Your task to perform on an android device: turn off priority inbox in the gmail app Image 0: 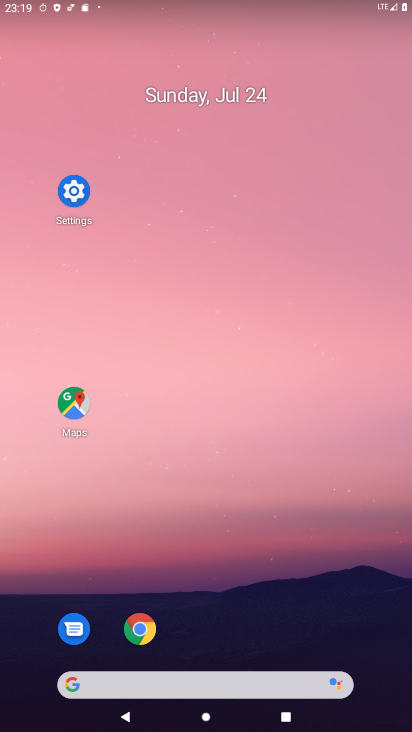
Step 0: drag from (258, 623) to (145, 222)
Your task to perform on an android device: turn off priority inbox in the gmail app Image 1: 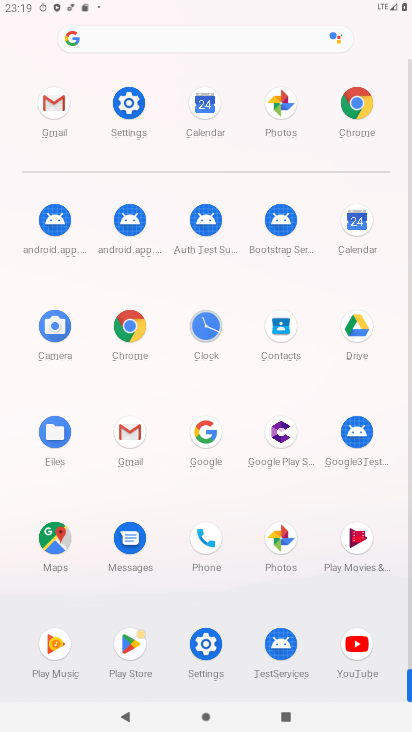
Step 1: click (116, 444)
Your task to perform on an android device: turn off priority inbox in the gmail app Image 2: 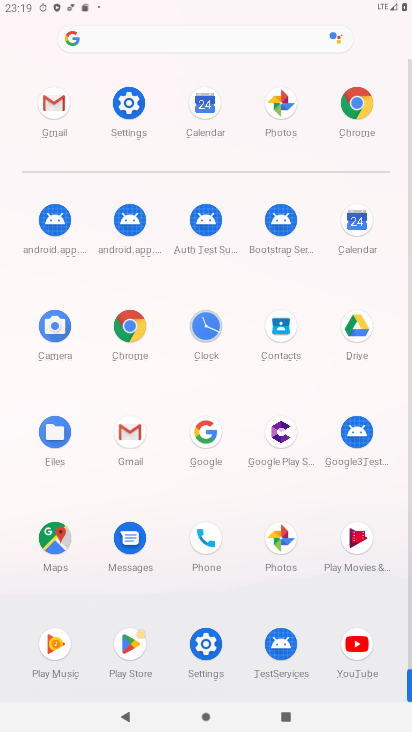
Step 2: click (133, 435)
Your task to perform on an android device: turn off priority inbox in the gmail app Image 3: 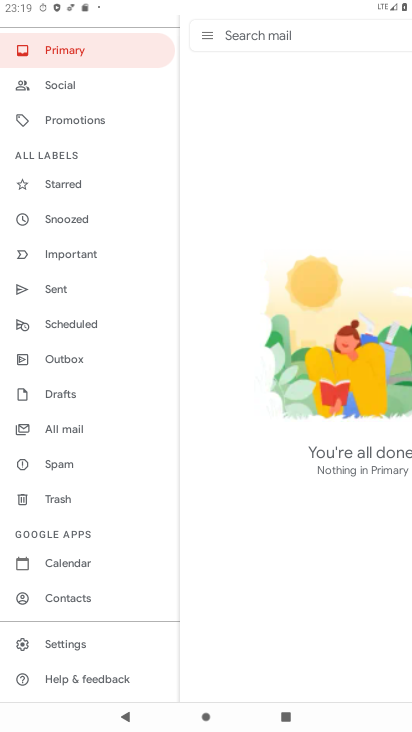
Step 3: click (82, 642)
Your task to perform on an android device: turn off priority inbox in the gmail app Image 4: 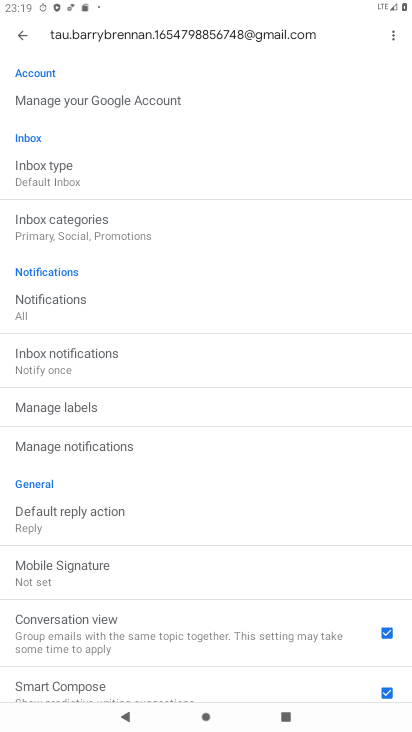
Step 4: click (31, 182)
Your task to perform on an android device: turn off priority inbox in the gmail app Image 5: 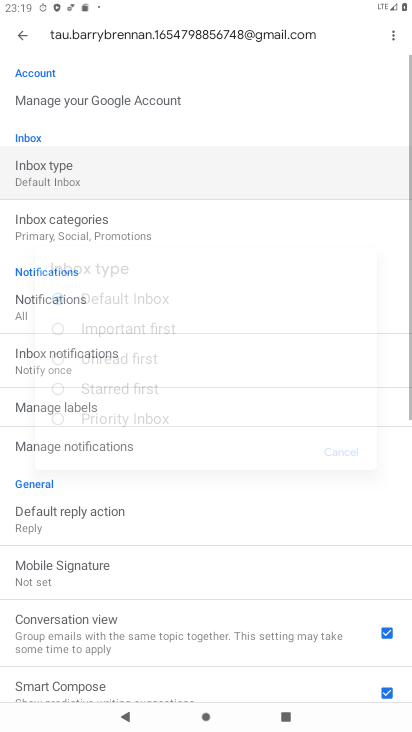
Step 5: click (28, 175)
Your task to perform on an android device: turn off priority inbox in the gmail app Image 6: 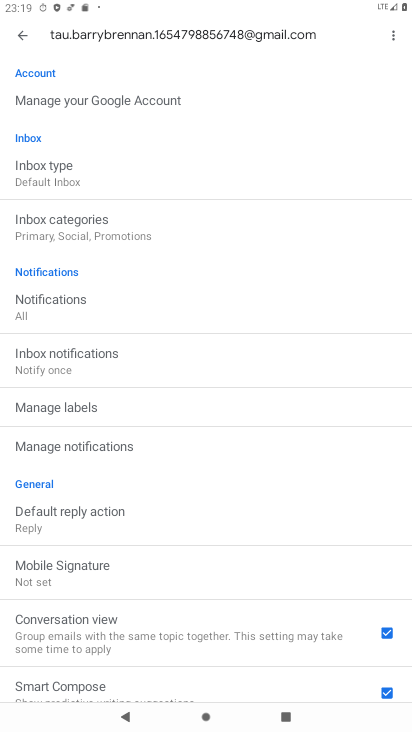
Step 6: click (51, 180)
Your task to perform on an android device: turn off priority inbox in the gmail app Image 7: 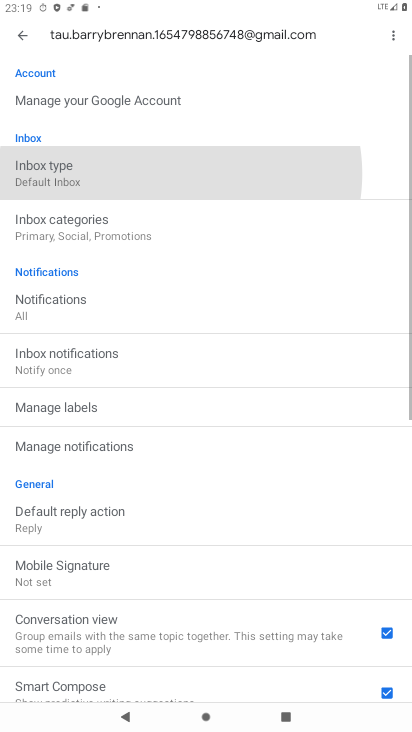
Step 7: click (55, 183)
Your task to perform on an android device: turn off priority inbox in the gmail app Image 8: 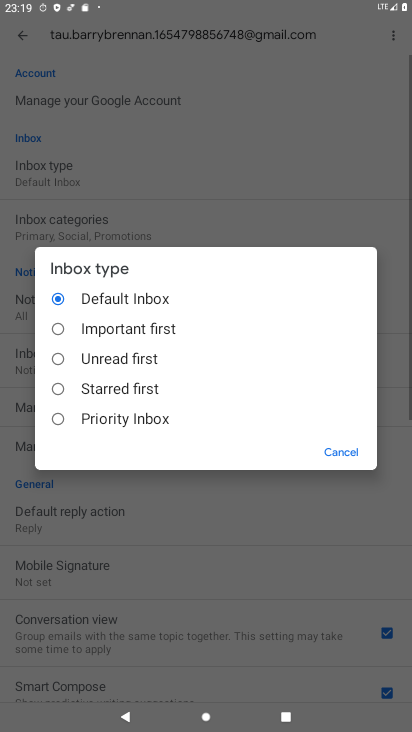
Step 8: click (58, 426)
Your task to perform on an android device: turn off priority inbox in the gmail app Image 9: 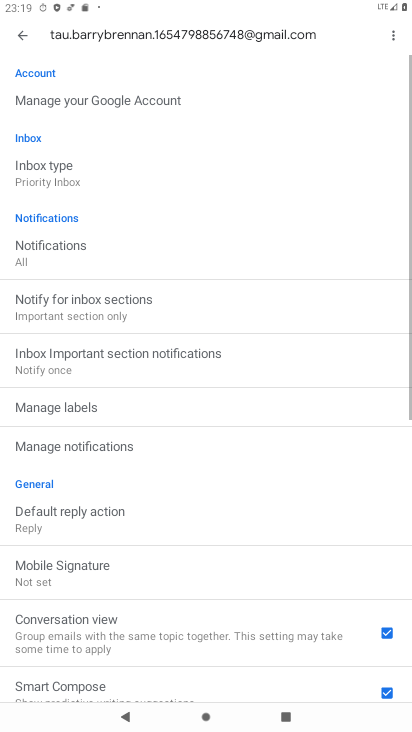
Step 9: click (57, 423)
Your task to perform on an android device: turn off priority inbox in the gmail app Image 10: 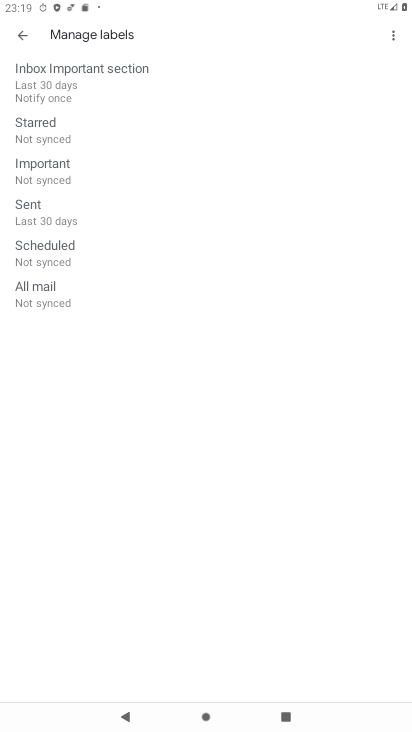
Step 10: click (29, 16)
Your task to perform on an android device: turn off priority inbox in the gmail app Image 11: 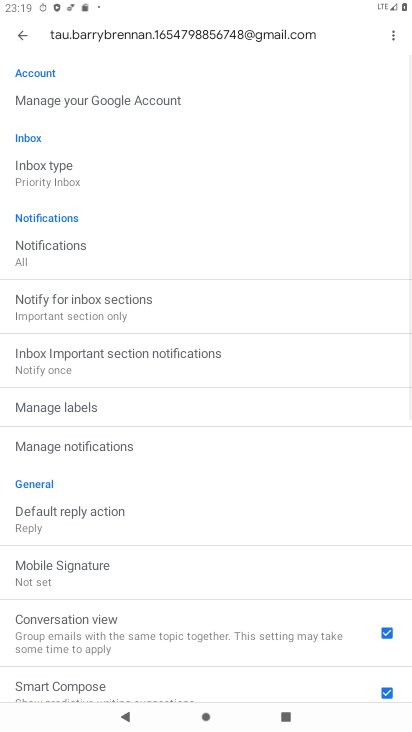
Step 11: task complete